Your task to perform on an android device: See recent photos Image 0: 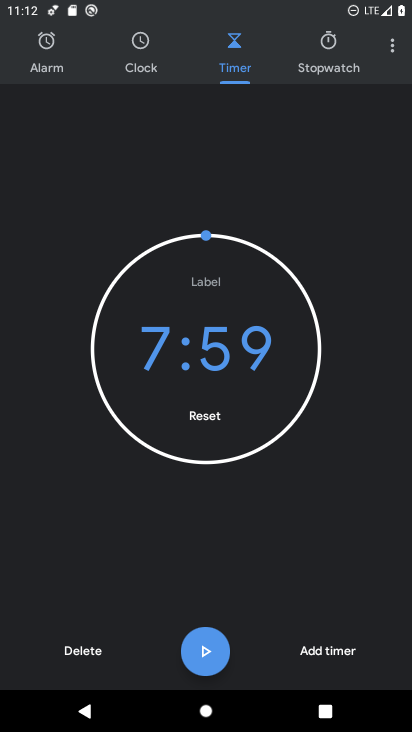
Step 0: press home button
Your task to perform on an android device: See recent photos Image 1: 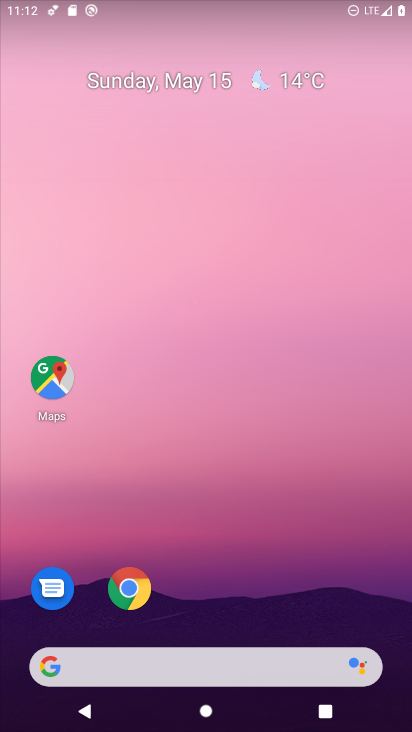
Step 1: drag from (242, 588) to (284, 0)
Your task to perform on an android device: See recent photos Image 2: 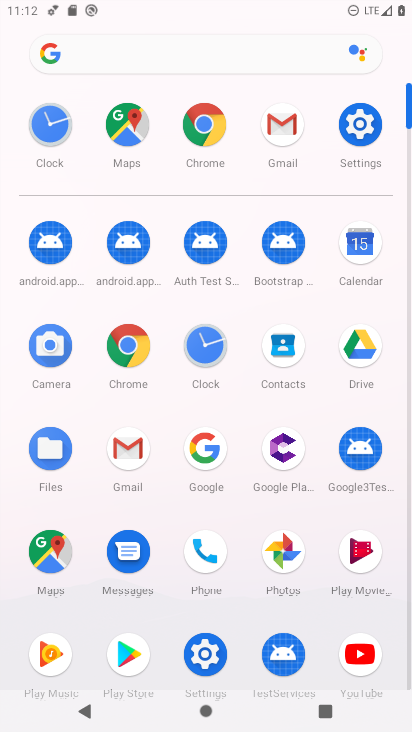
Step 2: click (292, 550)
Your task to perform on an android device: See recent photos Image 3: 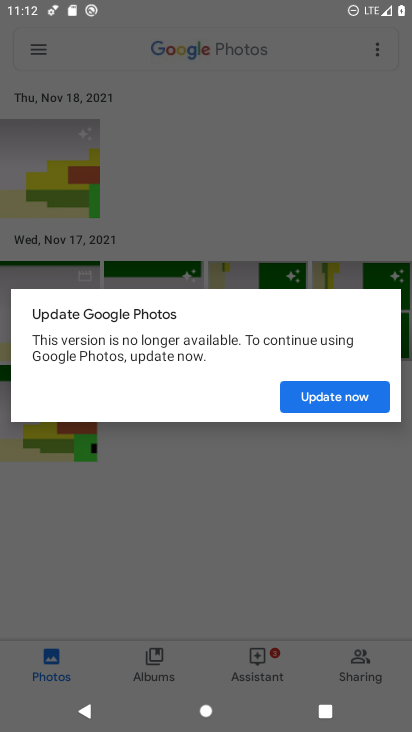
Step 3: click (370, 398)
Your task to perform on an android device: See recent photos Image 4: 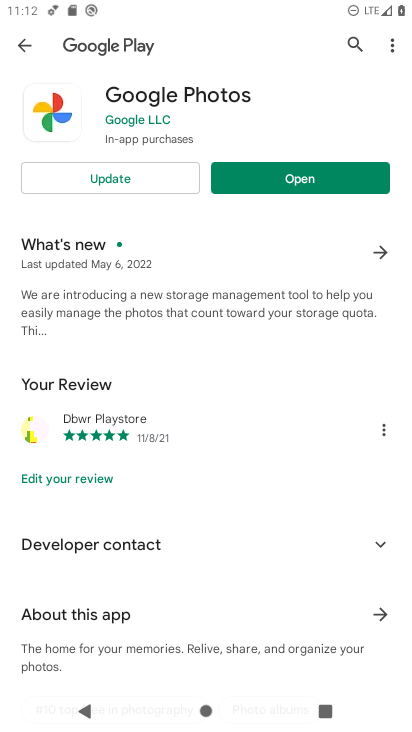
Step 4: click (160, 173)
Your task to perform on an android device: See recent photos Image 5: 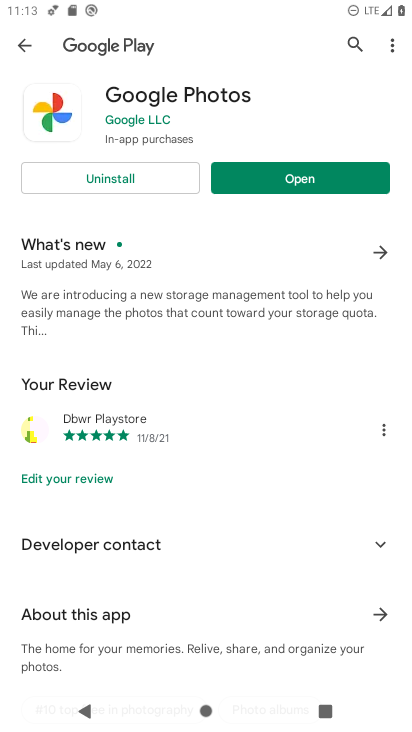
Step 5: click (302, 184)
Your task to perform on an android device: See recent photos Image 6: 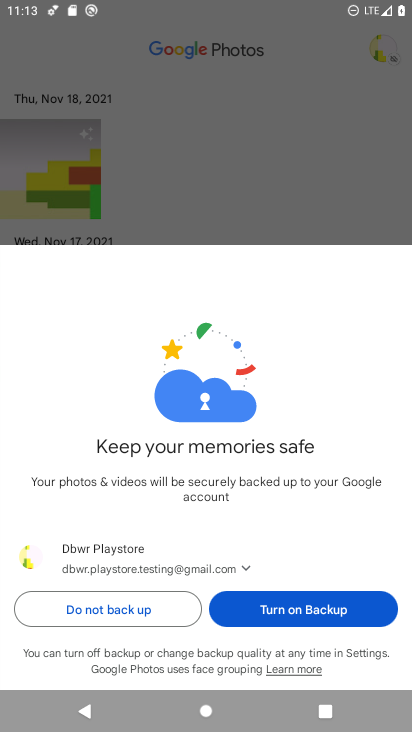
Step 6: click (271, 611)
Your task to perform on an android device: See recent photos Image 7: 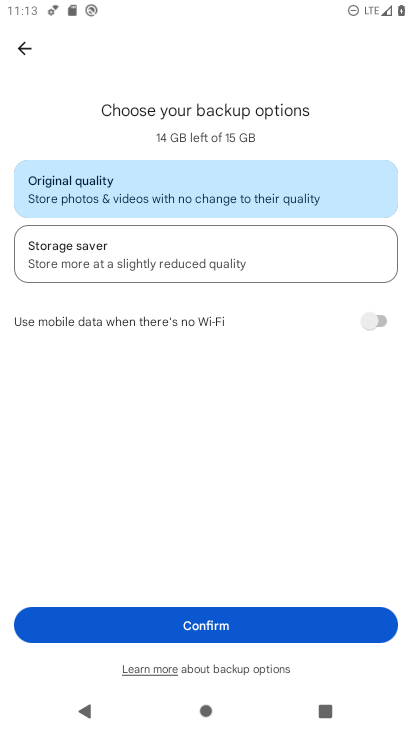
Step 7: click (265, 622)
Your task to perform on an android device: See recent photos Image 8: 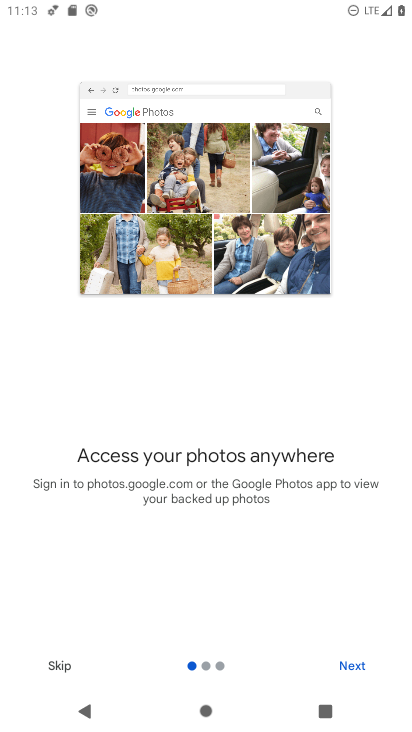
Step 8: click (69, 661)
Your task to perform on an android device: See recent photos Image 9: 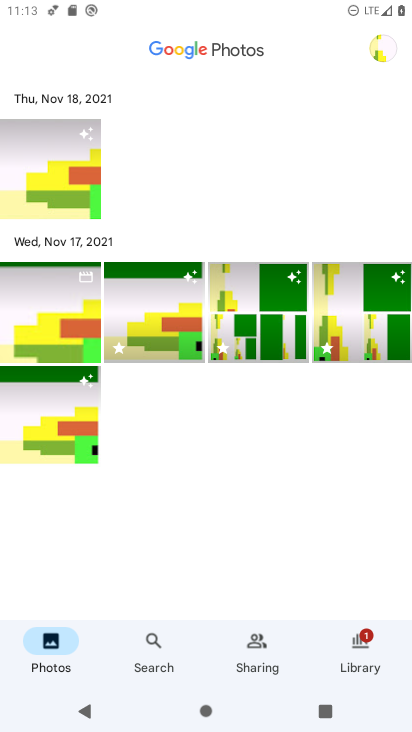
Step 9: task complete